Your task to perform on an android device: What's on my calendar today? Image 0: 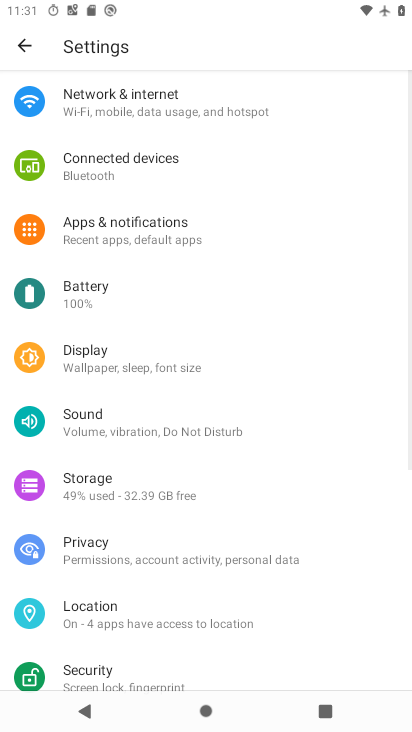
Step 0: press home button
Your task to perform on an android device: What's on my calendar today? Image 1: 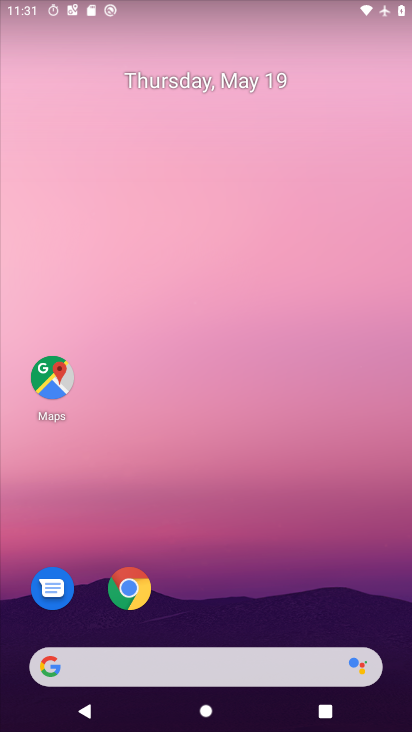
Step 1: drag from (141, 667) to (275, 245)
Your task to perform on an android device: What's on my calendar today? Image 2: 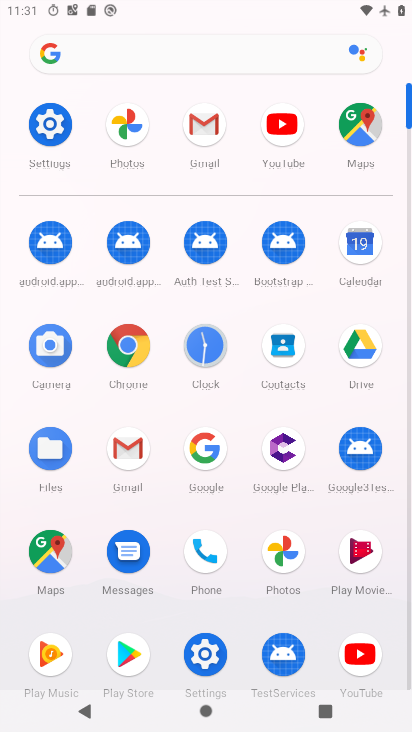
Step 2: click (365, 255)
Your task to perform on an android device: What's on my calendar today? Image 3: 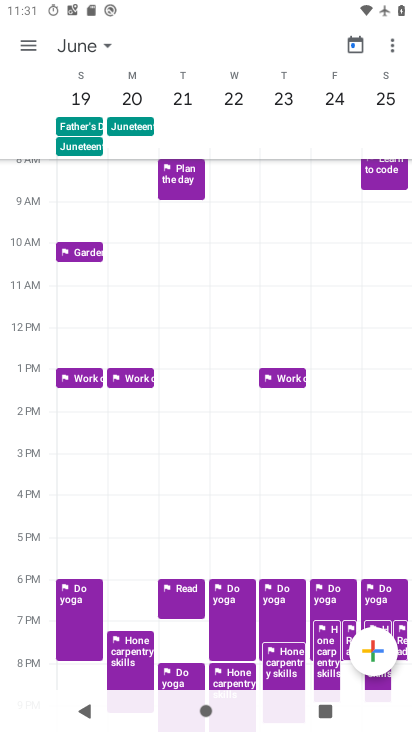
Step 3: click (80, 51)
Your task to perform on an android device: What's on my calendar today? Image 4: 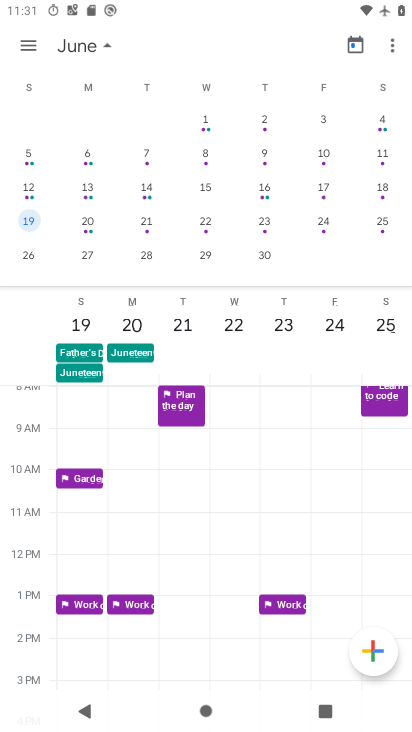
Step 4: drag from (100, 199) to (351, 202)
Your task to perform on an android device: What's on my calendar today? Image 5: 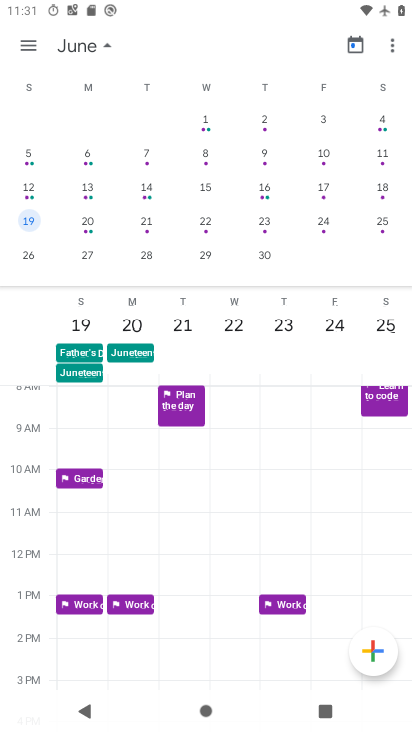
Step 5: drag from (58, 182) to (380, 195)
Your task to perform on an android device: What's on my calendar today? Image 6: 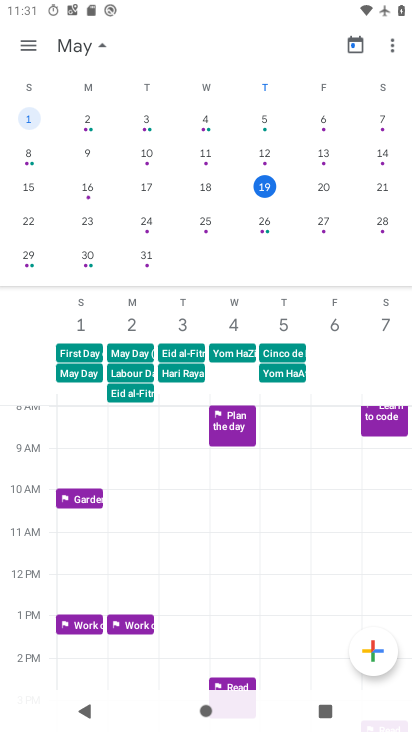
Step 6: click (270, 184)
Your task to perform on an android device: What's on my calendar today? Image 7: 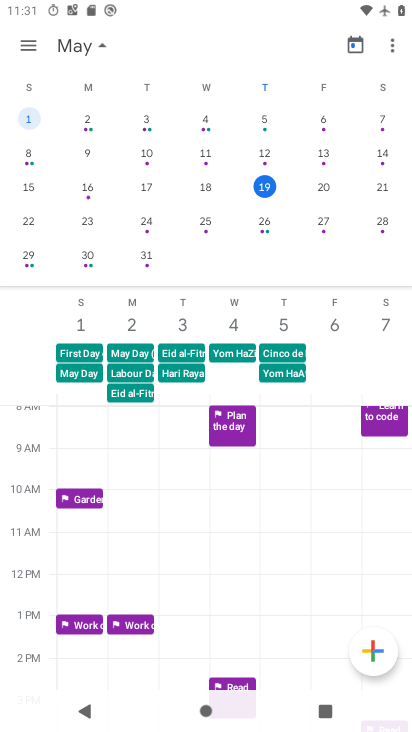
Step 7: click (264, 191)
Your task to perform on an android device: What's on my calendar today? Image 8: 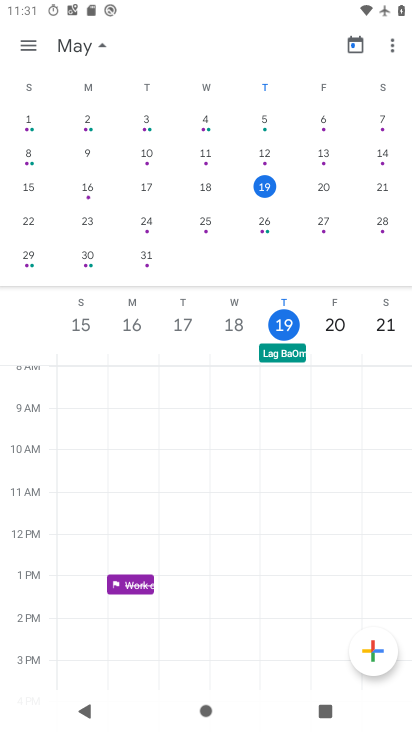
Step 8: click (30, 41)
Your task to perform on an android device: What's on my calendar today? Image 9: 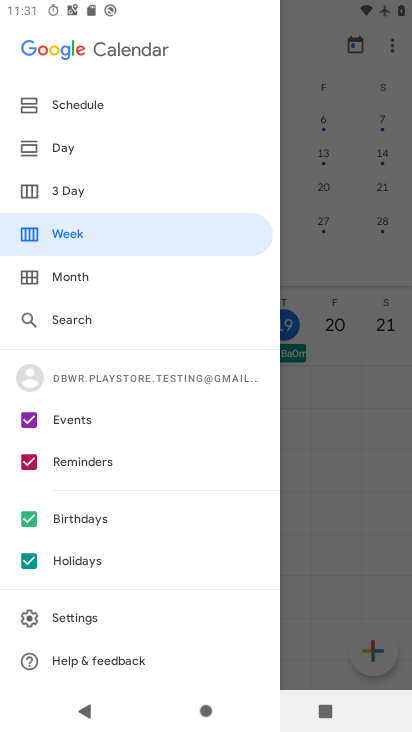
Step 9: click (88, 109)
Your task to perform on an android device: What's on my calendar today? Image 10: 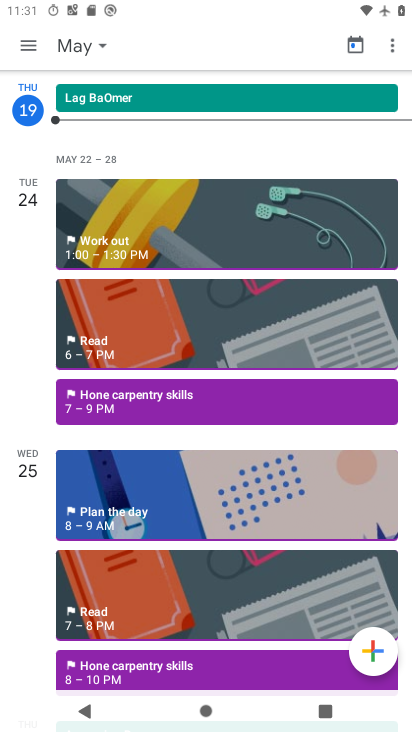
Step 10: task complete